Your task to perform on an android device: Open CNN.com Image 0: 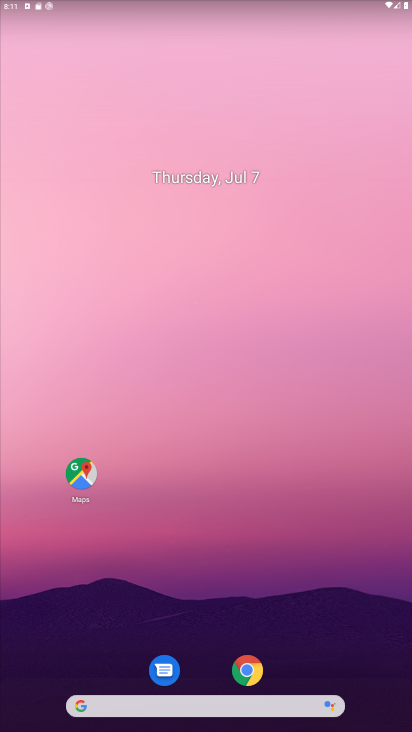
Step 0: click (231, 677)
Your task to perform on an android device: Open CNN.com Image 1: 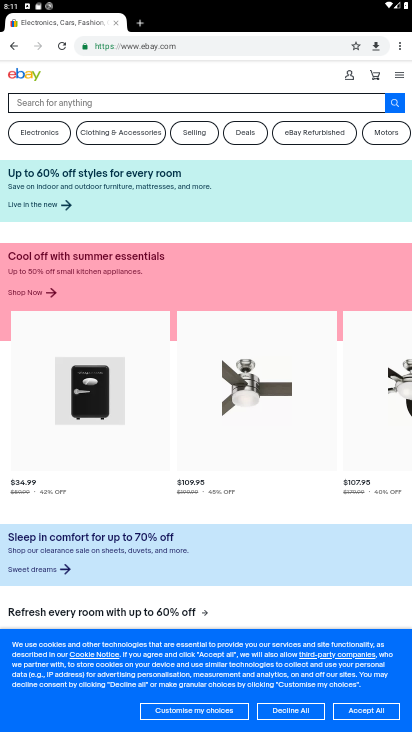
Step 1: click (159, 41)
Your task to perform on an android device: Open CNN.com Image 2: 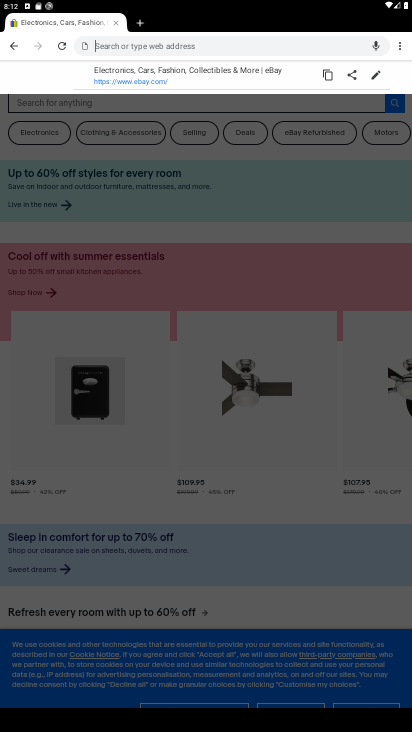
Step 2: type "CNN.com"
Your task to perform on an android device: Open CNN.com Image 3: 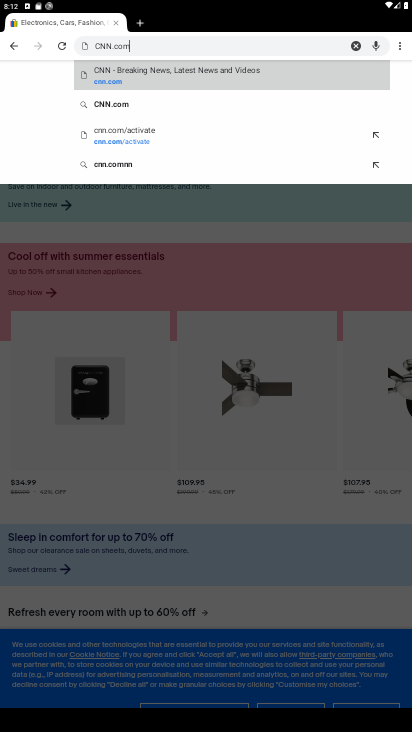
Step 3: type ""
Your task to perform on an android device: Open CNN.com Image 4: 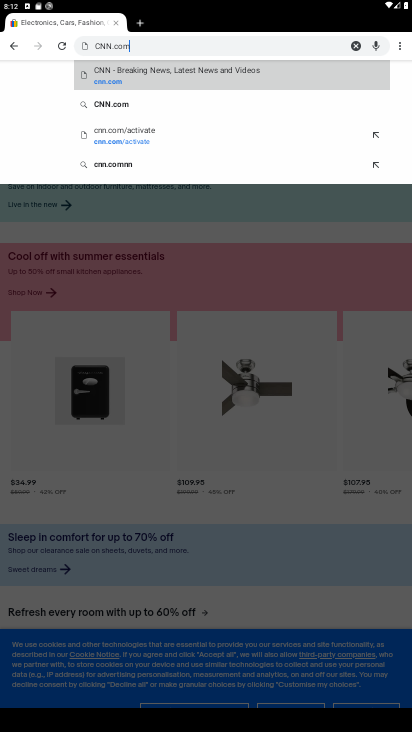
Step 4: click (148, 100)
Your task to perform on an android device: Open CNN.com Image 5: 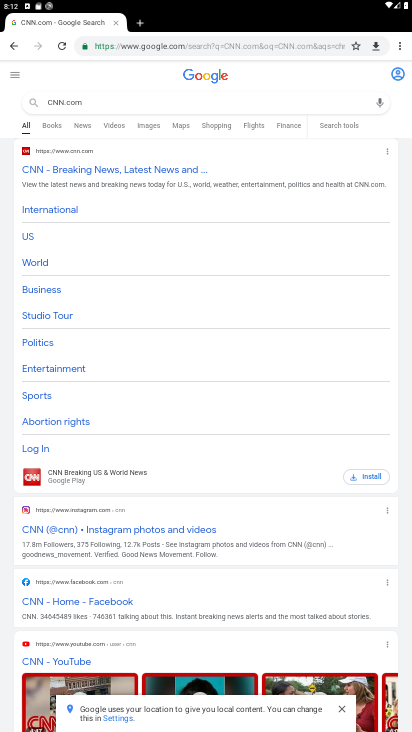
Step 5: task complete